Your task to perform on an android device: Open maps Image 0: 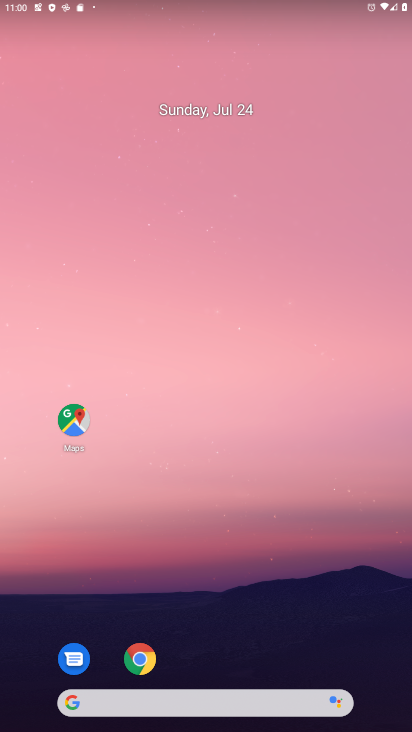
Step 0: click (75, 419)
Your task to perform on an android device: Open maps Image 1: 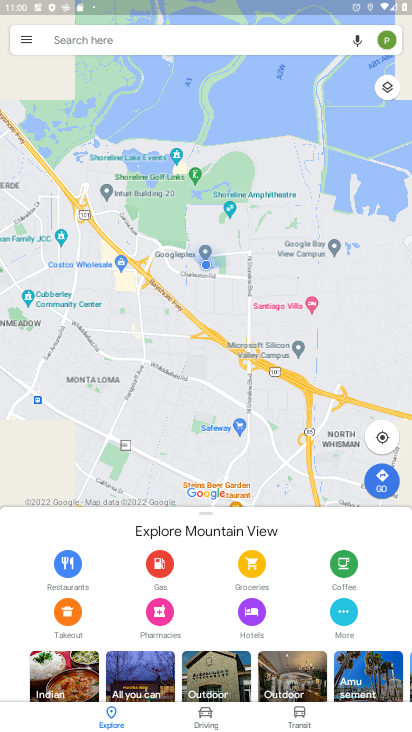
Step 1: task complete